Your task to perform on an android device: star an email in the gmail app Image 0: 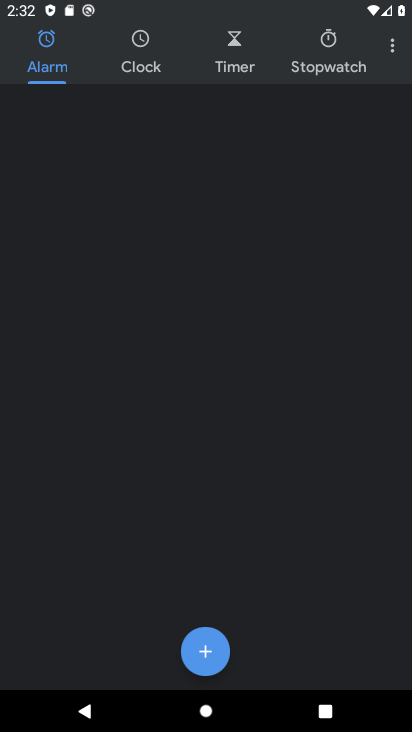
Step 0: drag from (209, 658) to (234, 96)
Your task to perform on an android device: star an email in the gmail app Image 1: 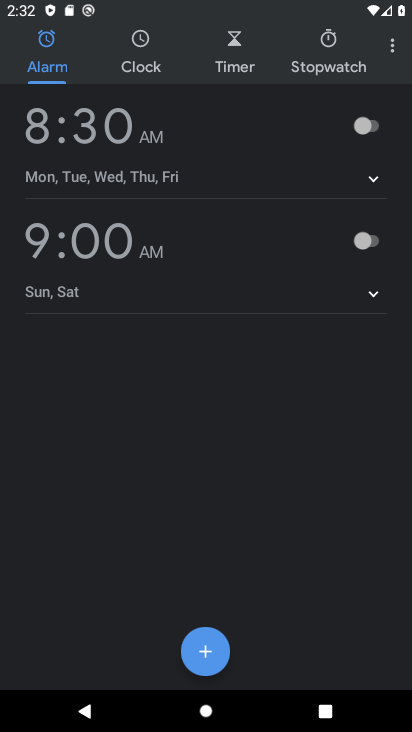
Step 1: press home button
Your task to perform on an android device: star an email in the gmail app Image 2: 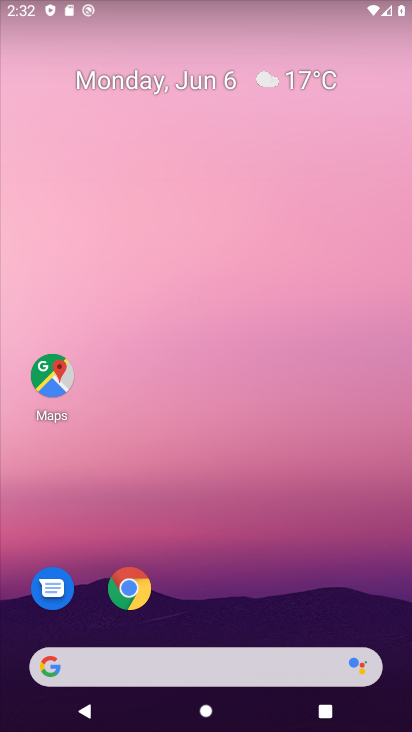
Step 2: drag from (249, 667) to (243, 176)
Your task to perform on an android device: star an email in the gmail app Image 3: 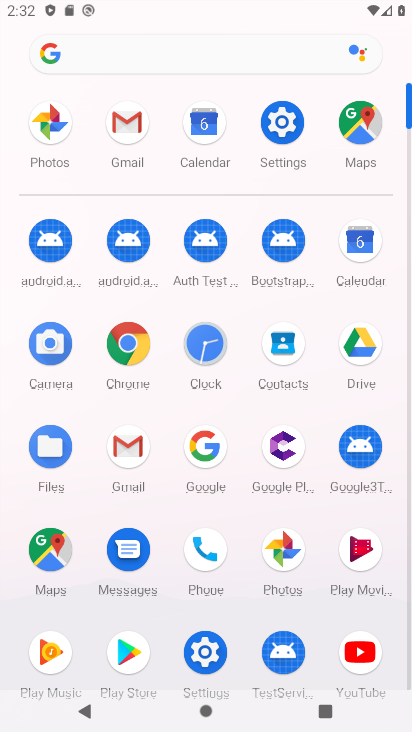
Step 3: click (136, 456)
Your task to perform on an android device: star an email in the gmail app Image 4: 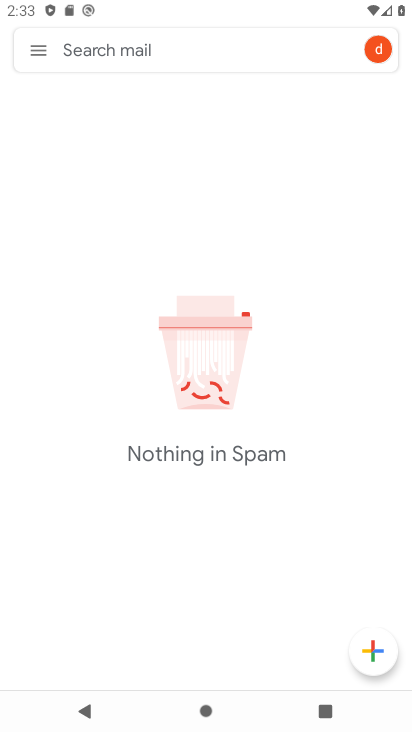
Step 4: click (54, 60)
Your task to perform on an android device: star an email in the gmail app Image 5: 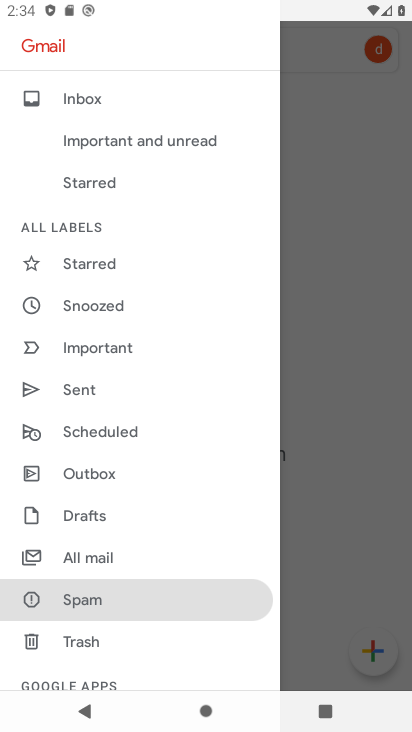
Step 5: click (109, 555)
Your task to perform on an android device: star an email in the gmail app Image 6: 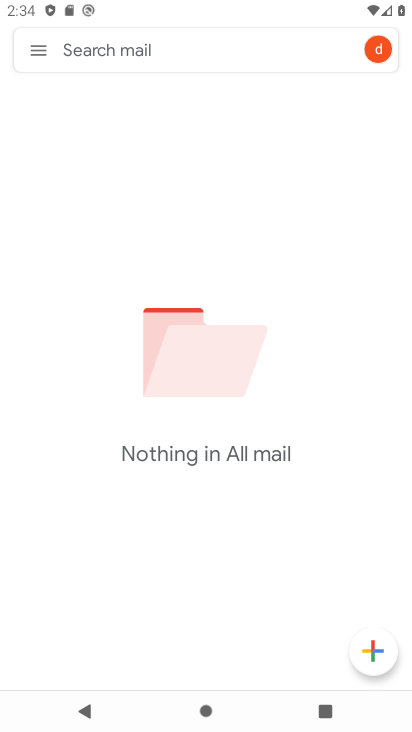
Step 6: task complete